Your task to perform on an android device: Empty the shopping cart on amazon.com. Search for "usb-b" on amazon.com, select the first entry, and add it to the cart. Image 0: 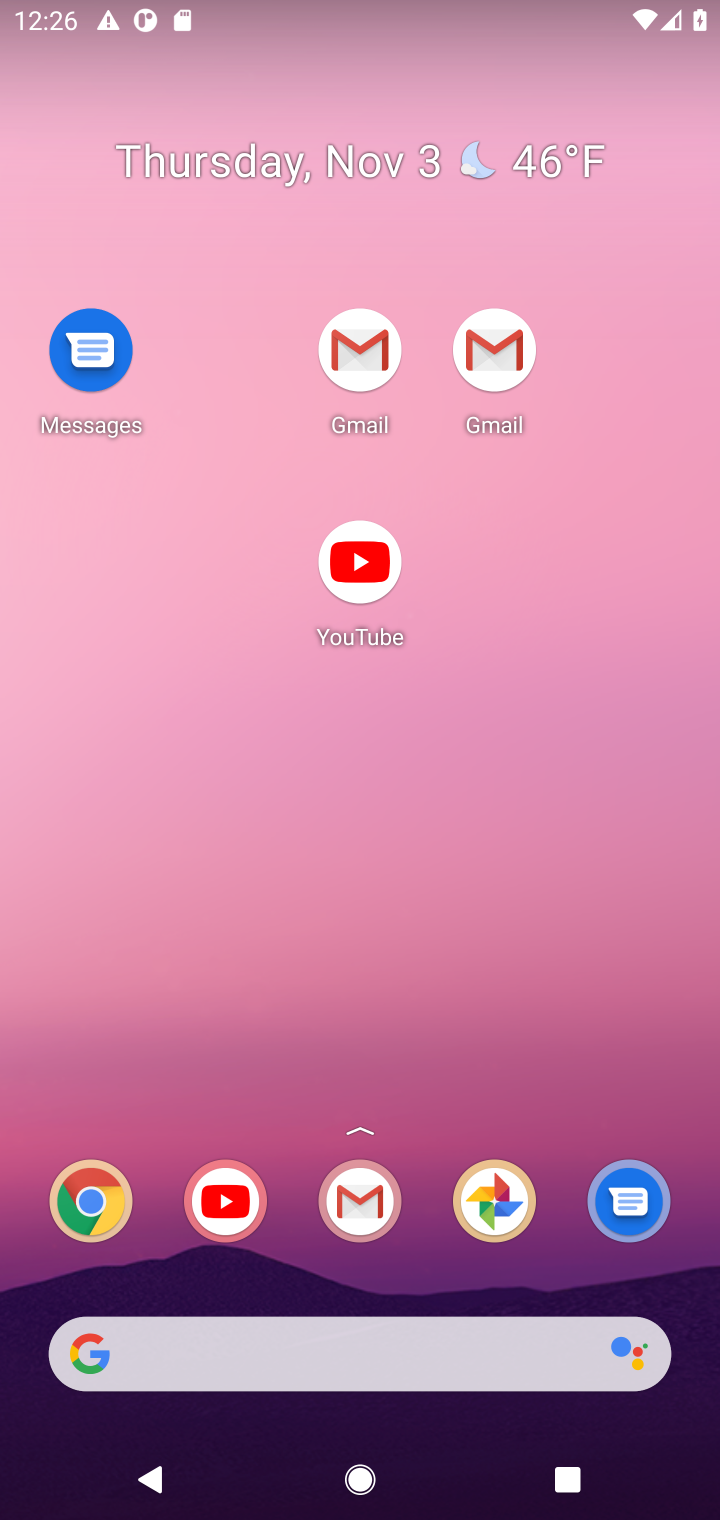
Step 0: drag from (338, 1290) to (227, 343)
Your task to perform on an android device: Empty the shopping cart on amazon.com. Search for "usb-b" on amazon.com, select the first entry, and add it to the cart. Image 1: 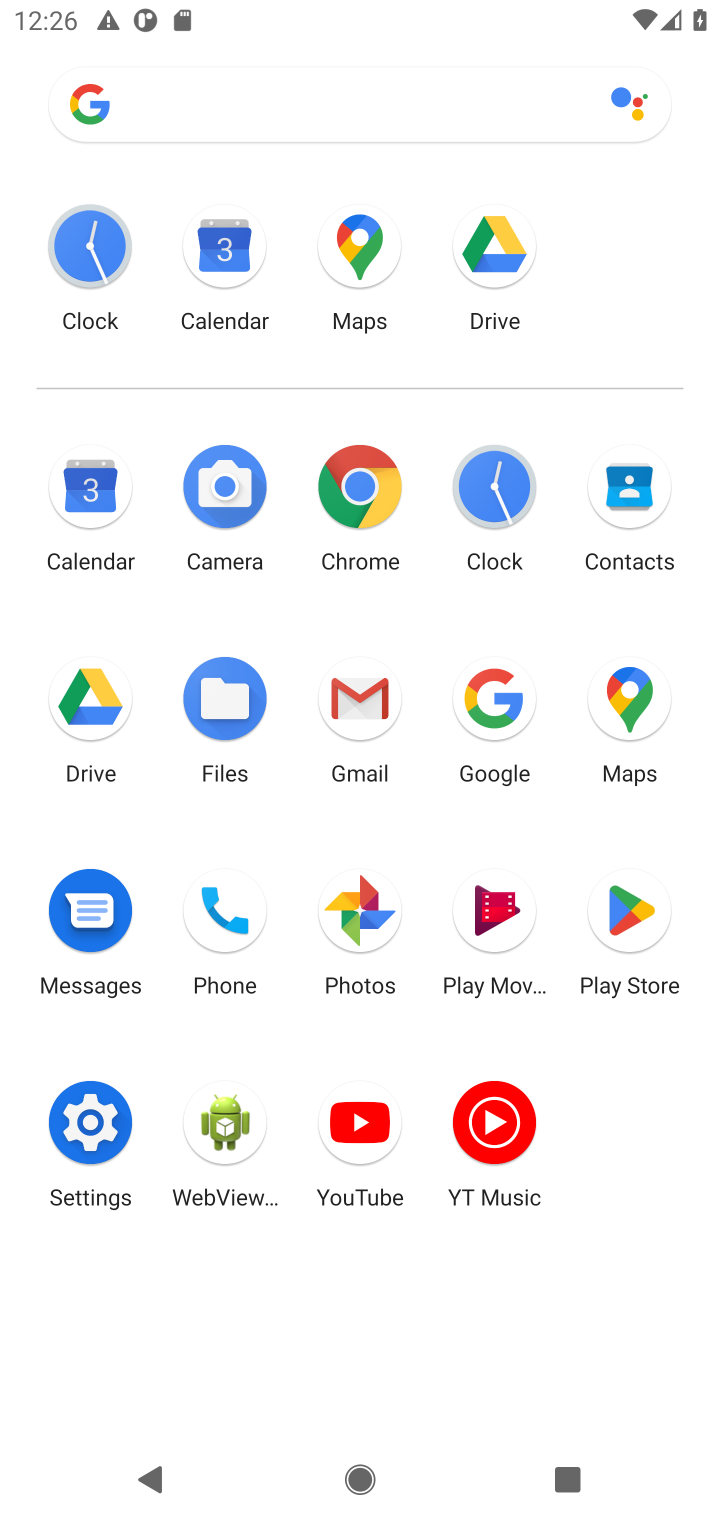
Step 1: click (361, 485)
Your task to perform on an android device: Empty the shopping cart on amazon.com. Search for "usb-b" on amazon.com, select the first entry, and add it to the cart. Image 2: 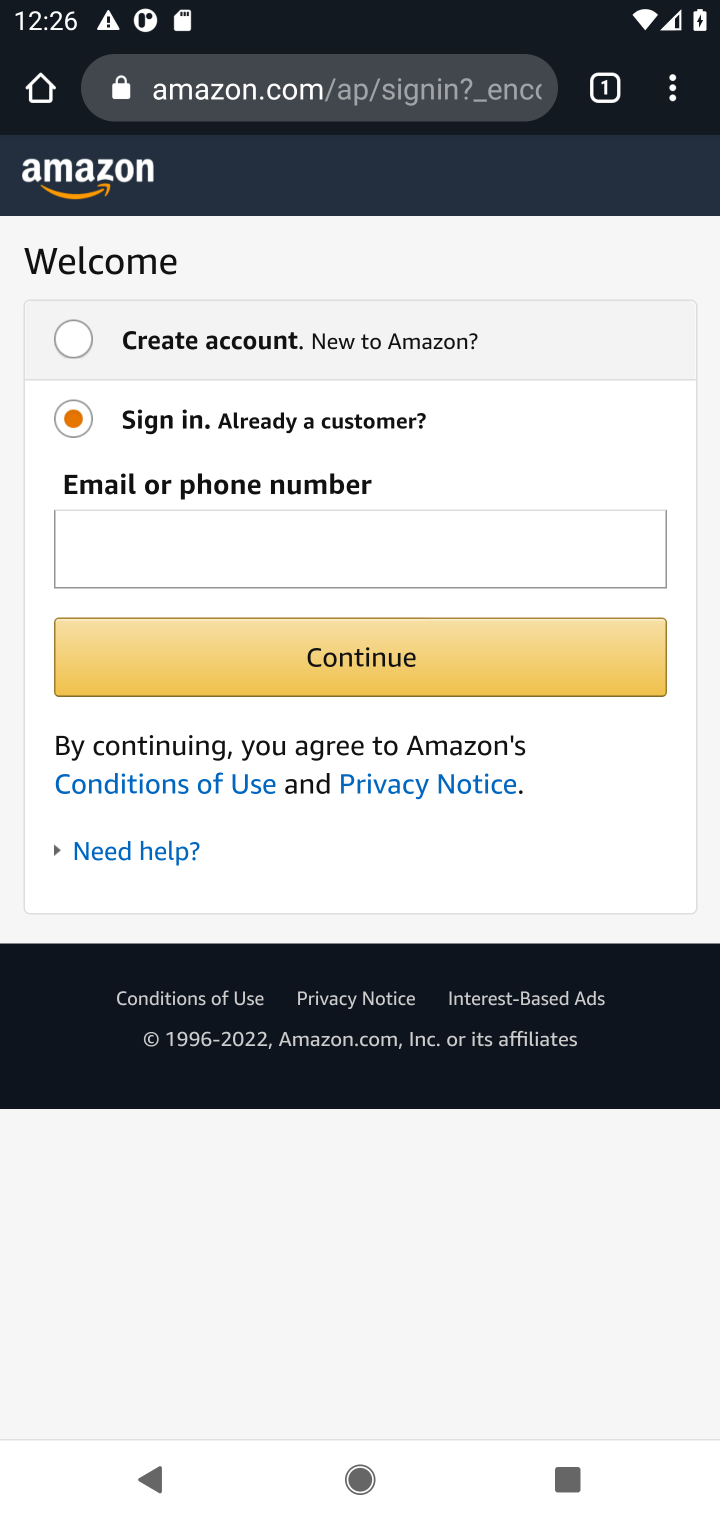
Step 2: click (337, 104)
Your task to perform on an android device: Empty the shopping cart on amazon.com. Search for "usb-b" on amazon.com, select the first entry, and add it to the cart. Image 3: 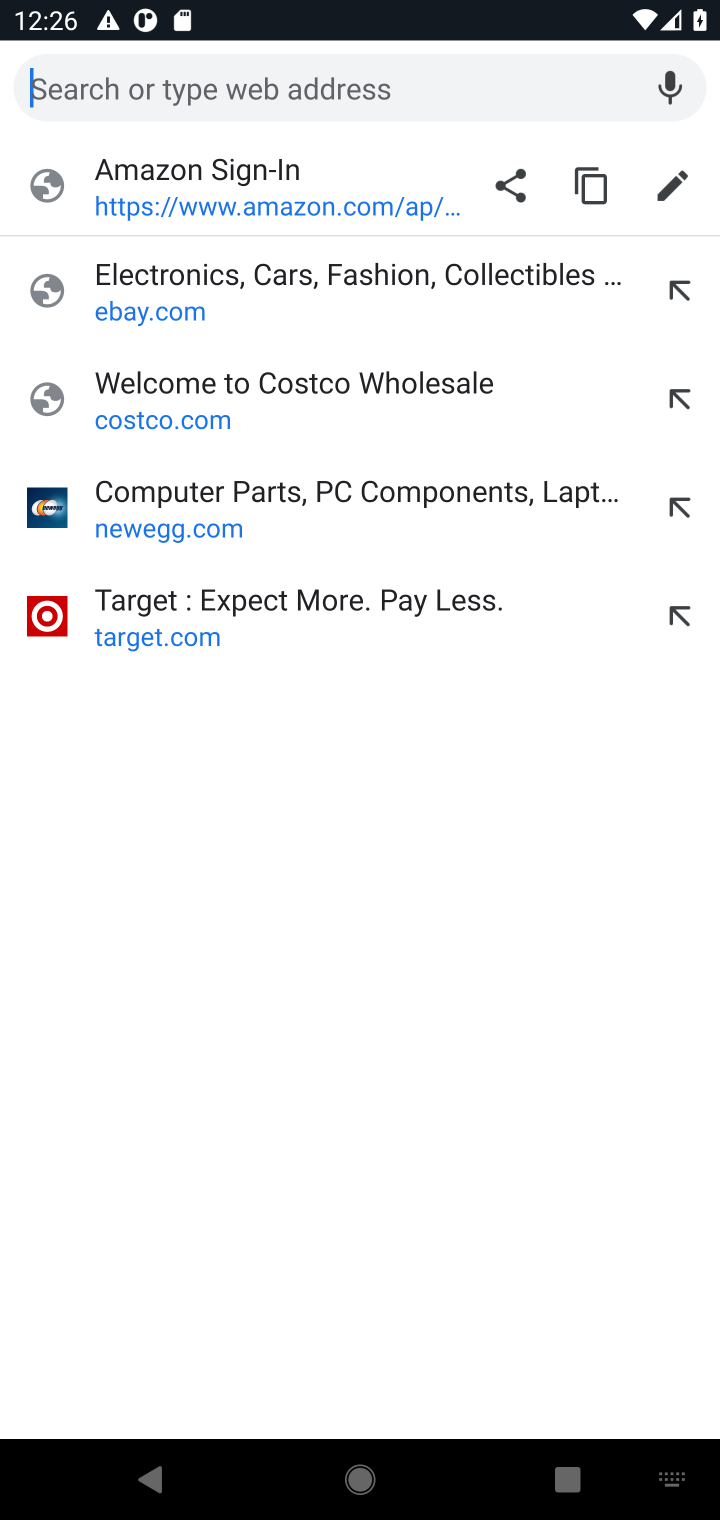
Step 3: type "amazon.com"
Your task to perform on an android device: Empty the shopping cart on amazon.com. Search for "usb-b" on amazon.com, select the first entry, and add it to the cart. Image 4: 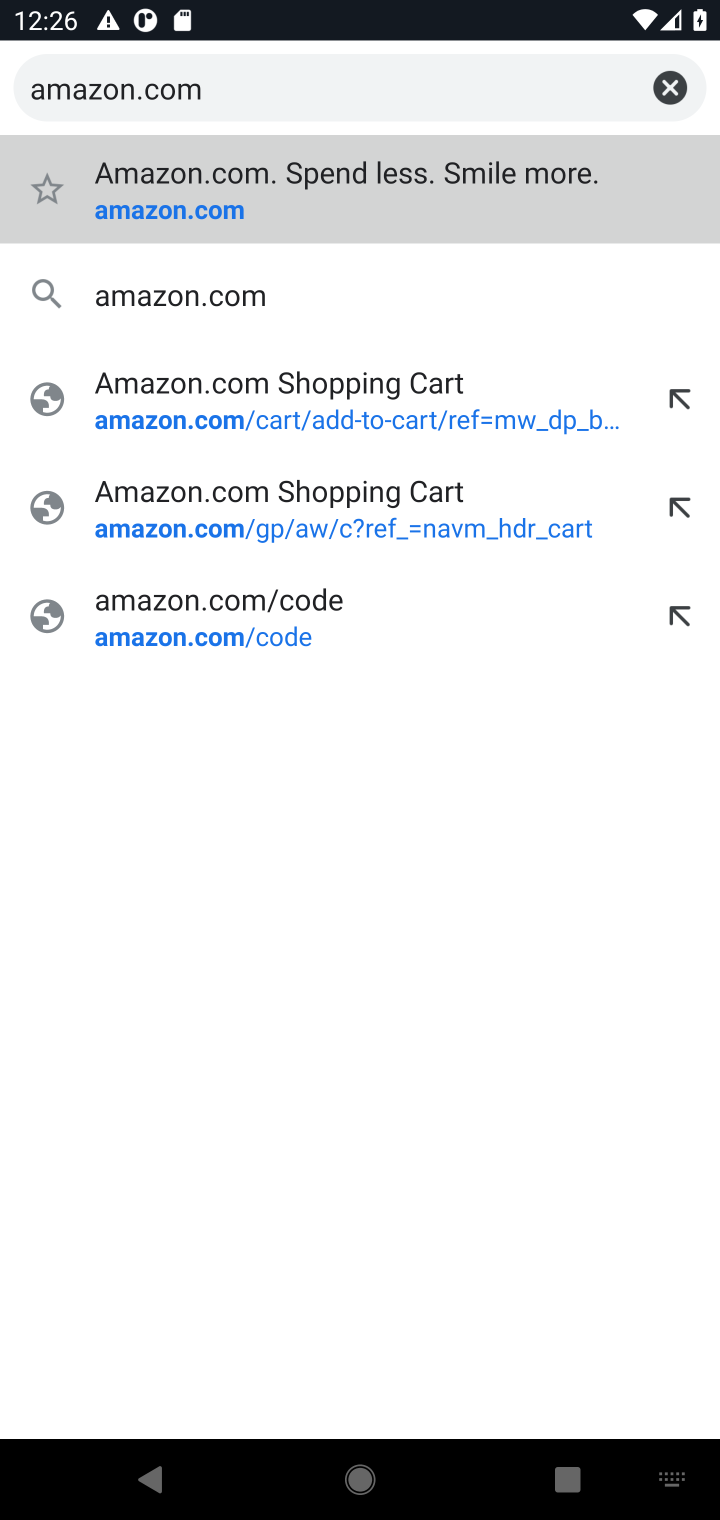
Step 4: press enter
Your task to perform on an android device: Empty the shopping cart on amazon.com. Search for "usb-b" on amazon.com, select the first entry, and add it to the cart. Image 5: 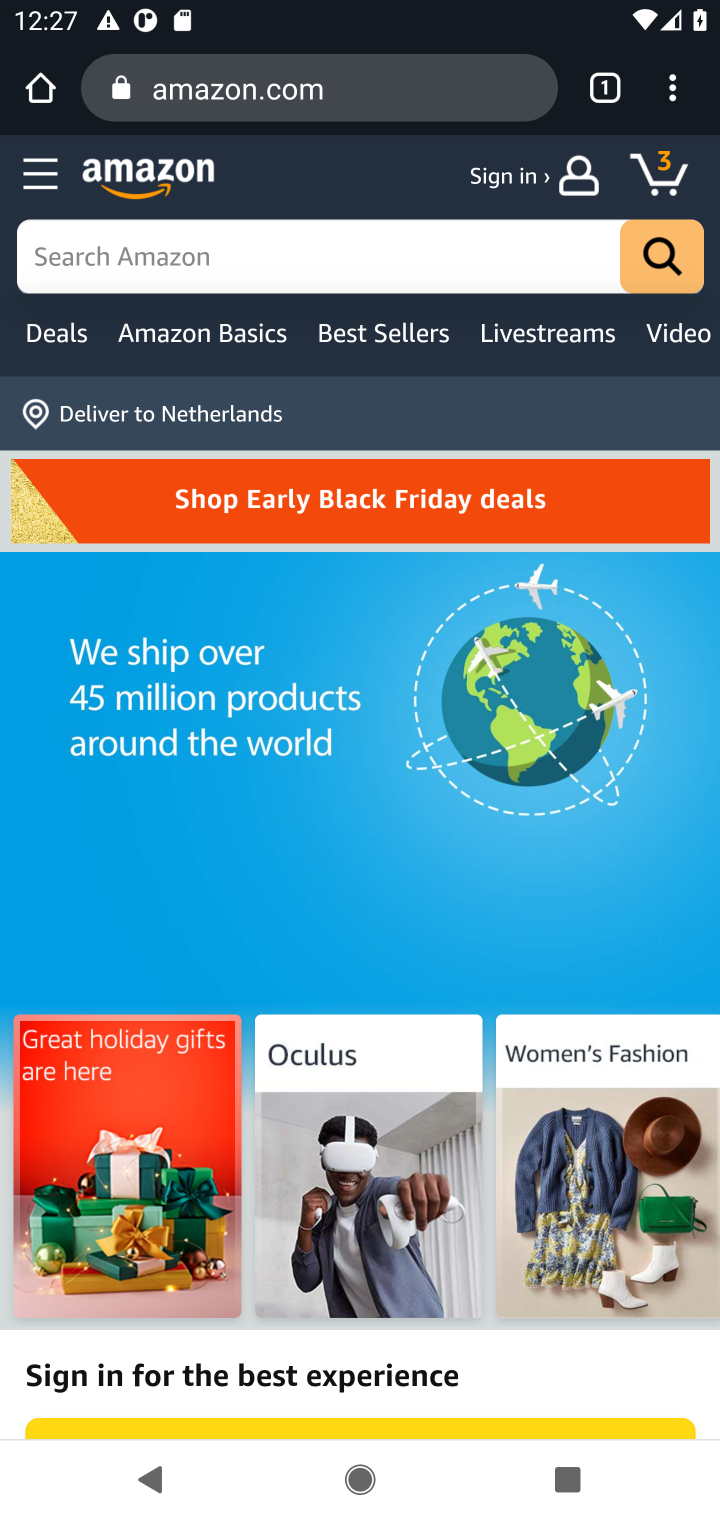
Step 5: click (678, 159)
Your task to perform on an android device: Empty the shopping cart on amazon.com. Search for "usb-b" on amazon.com, select the first entry, and add it to the cart. Image 6: 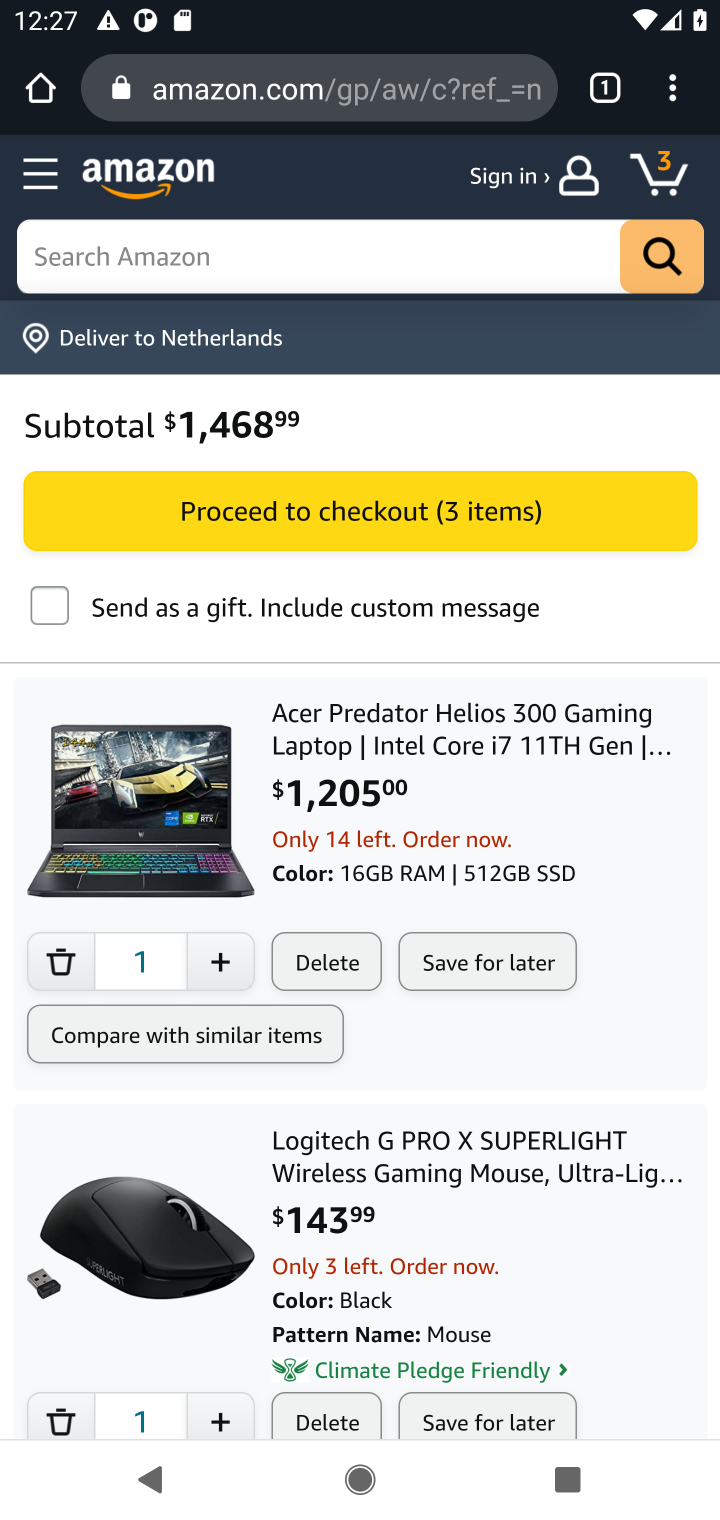
Step 6: click (44, 954)
Your task to perform on an android device: Empty the shopping cart on amazon.com. Search for "usb-b" on amazon.com, select the first entry, and add it to the cart. Image 7: 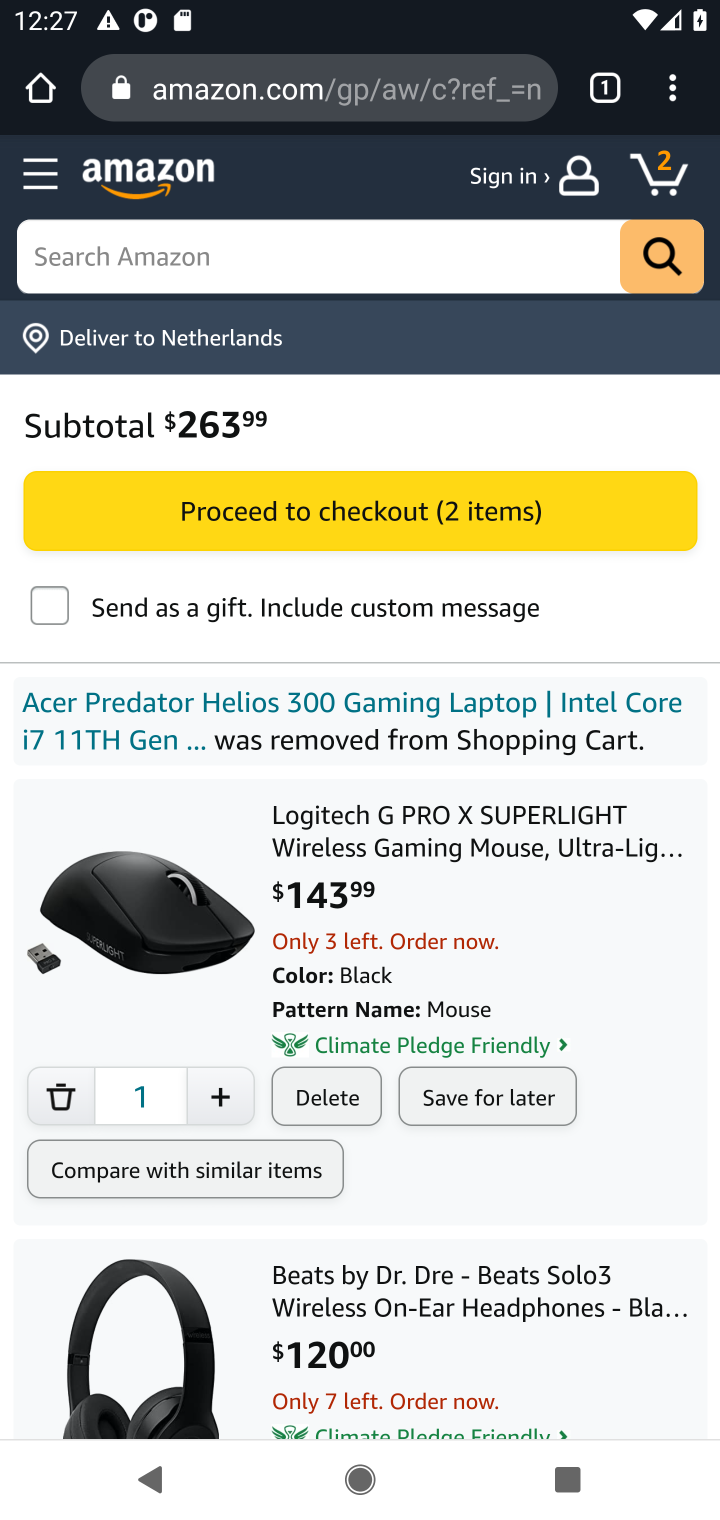
Step 7: click (71, 1086)
Your task to perform on an android device: Empty the shopping cart on amazon.com. Search for "usb-b" on amazon.com, select the first entry, and add it to the cart. Image 8: 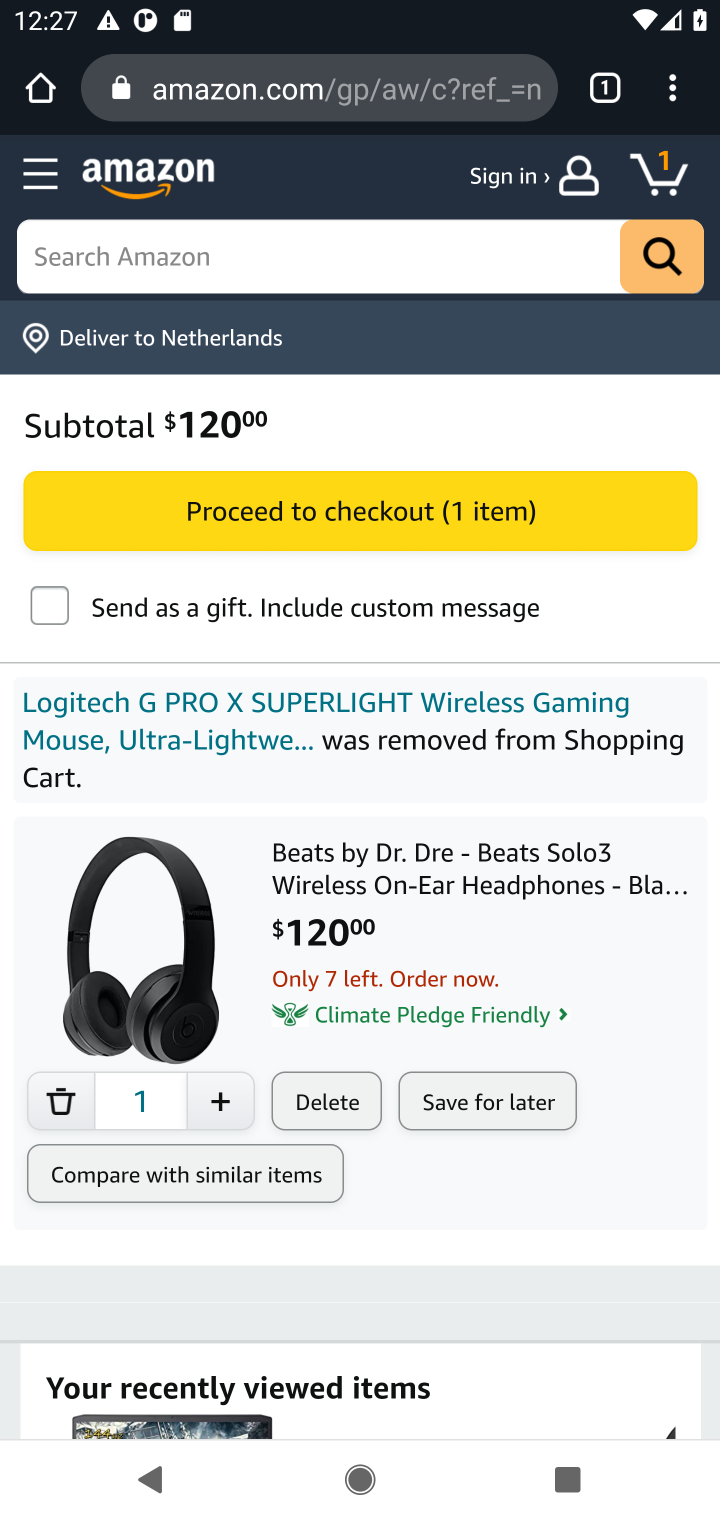
Step 8: click (68, 1104)
Your task to perform on an android device: Empty the shopping cart on amazon.com. Search for "usb-b" on amazon.com, select the first entry, and add it to the cart. Image 9: 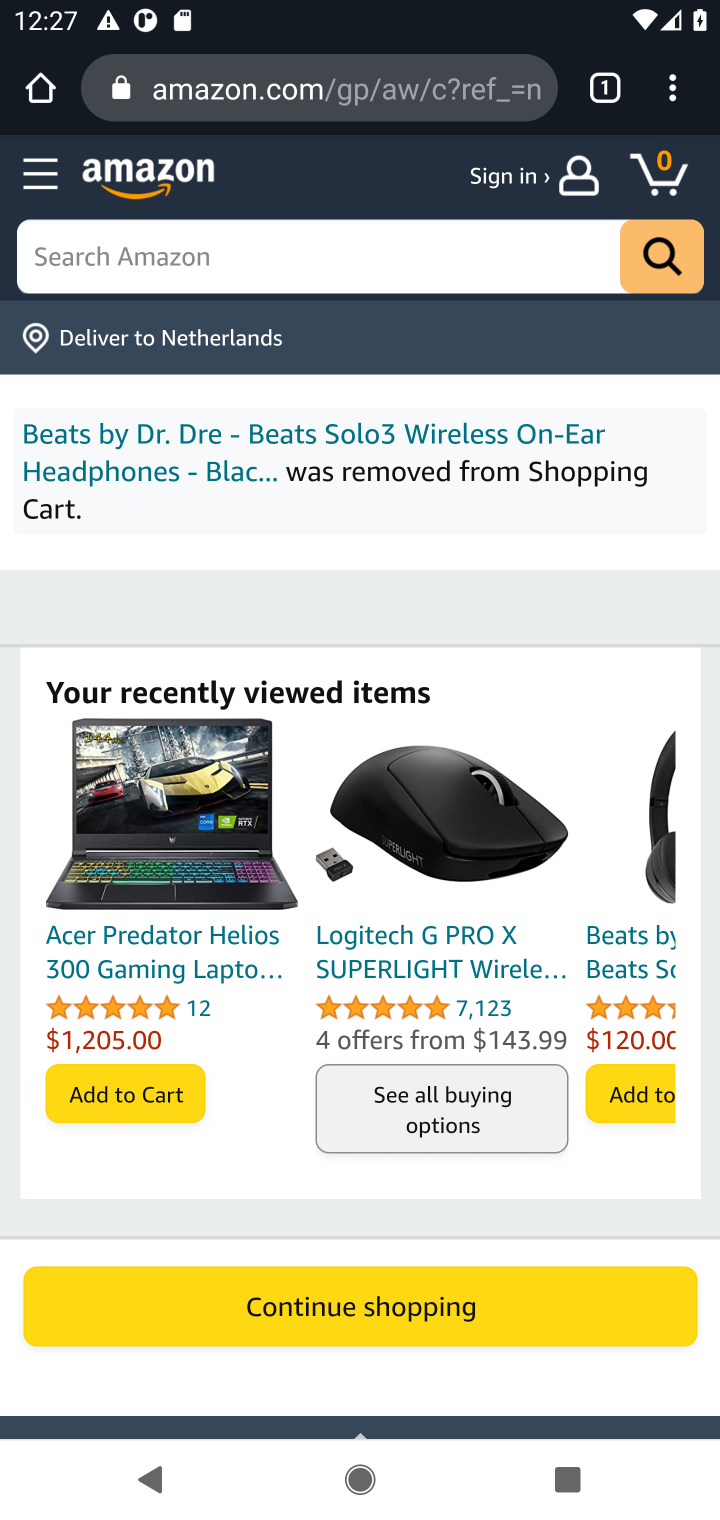
Step 9: click (392, 261)
Your task to perform on an android device: Empty the shopping cart on amazon.com. Search for "usb-b" on amazon.com, select the first entry, and add it to the cart. Image 10: 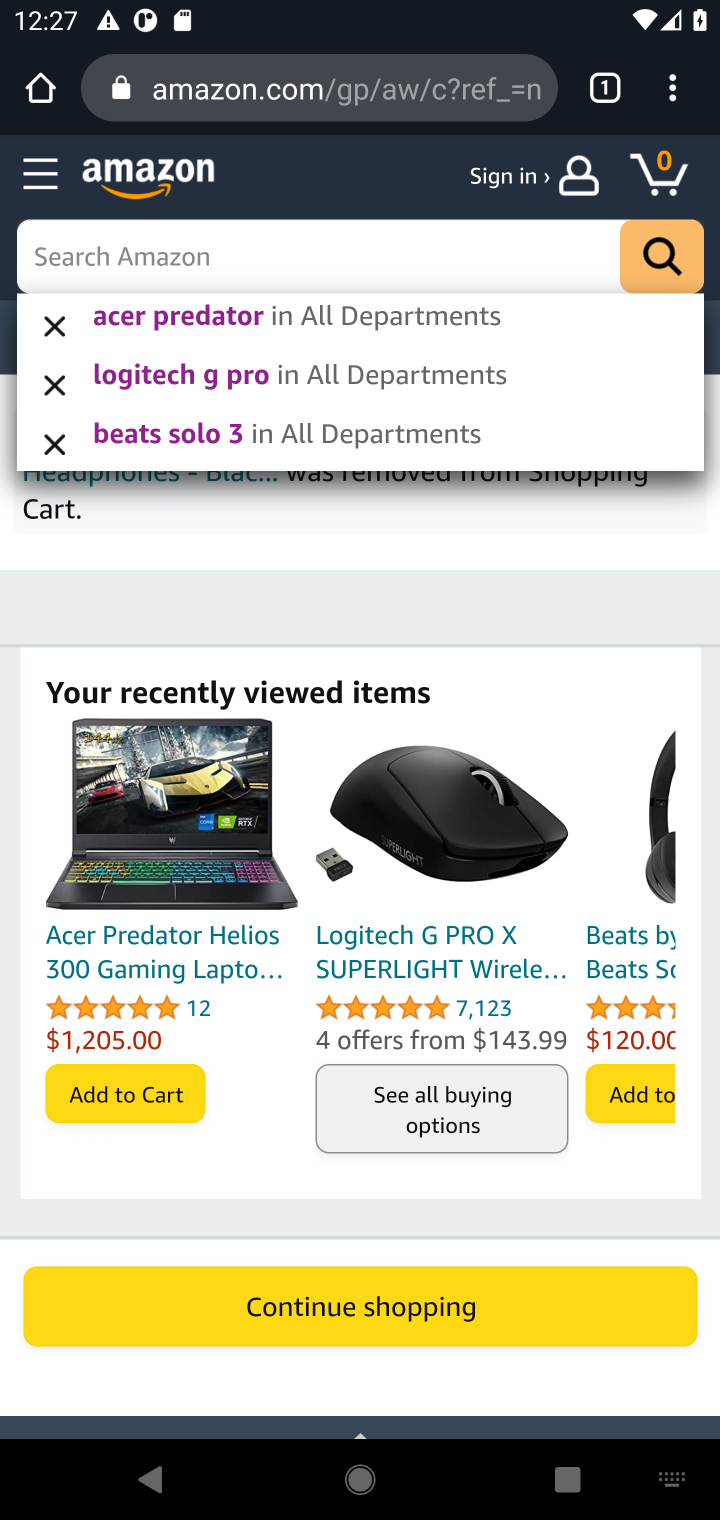
Step 10: type "usb-b"
Your task to perform on an android device: Empty the shopping cart on amazon.com. Search for "usb-b" on amazon.com, select the first entry, and add it to the cart. Image 11: 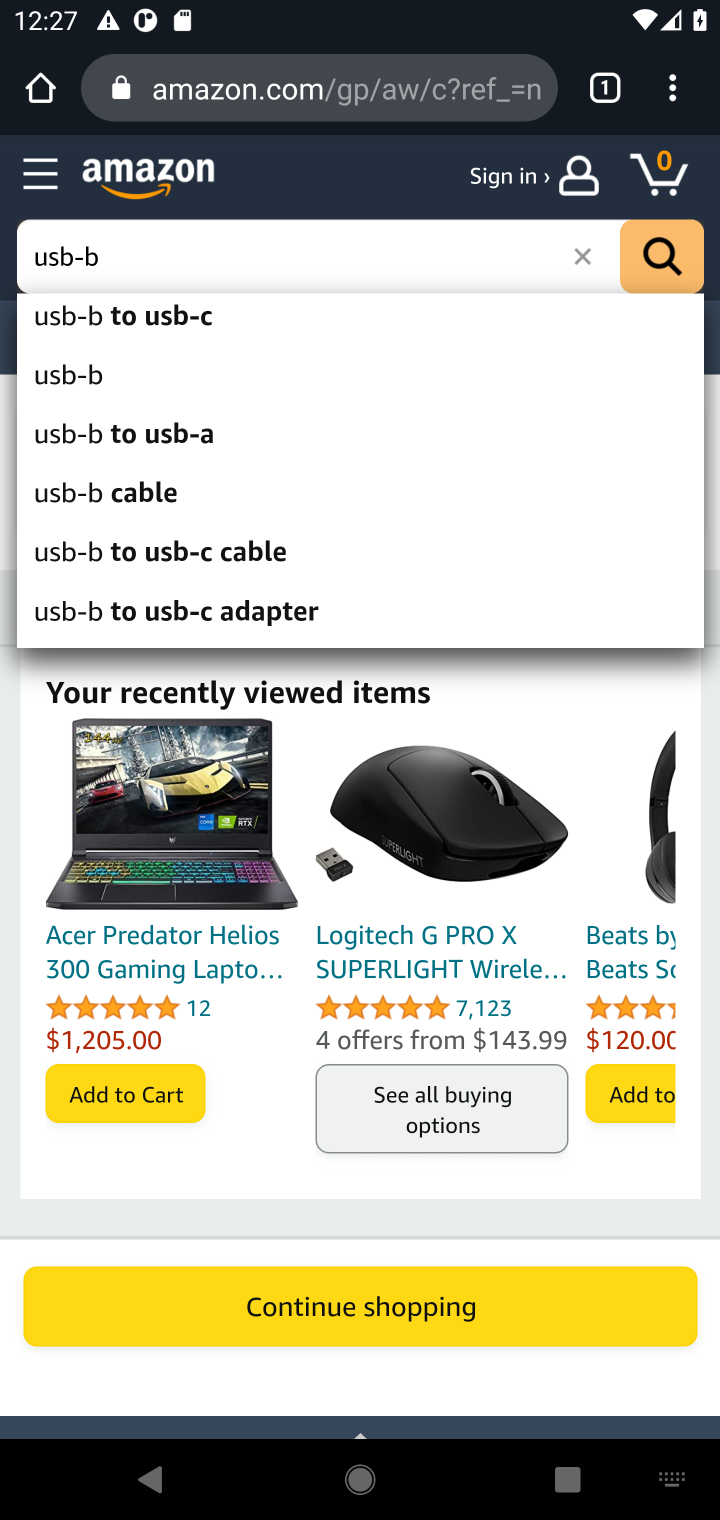
Step 11: press enter
Your task to perform on an android device: Empty the shopping cart on amazon.com. Search for "usb-b" on amazon.com, select the first entry, and add it to the cart. Image 12: 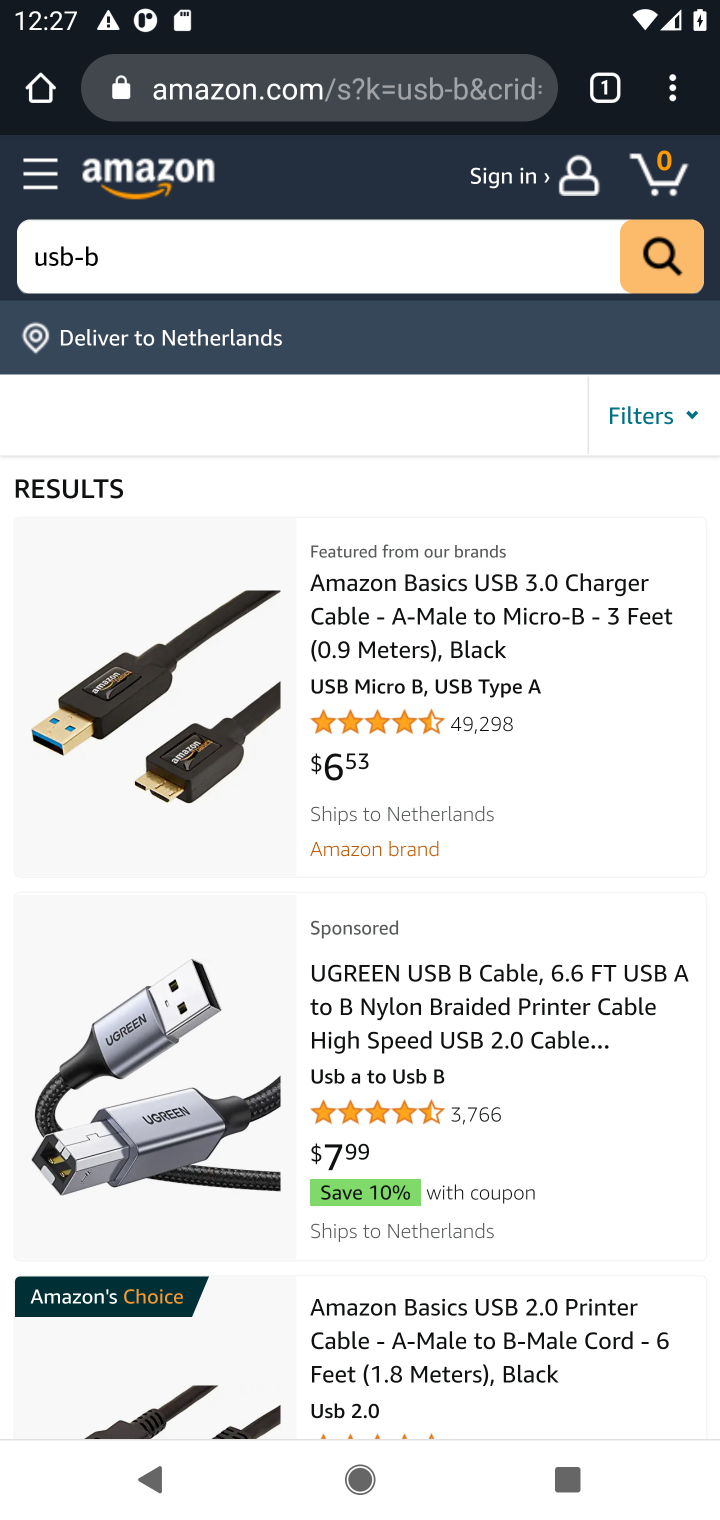
Step 12: drag from (325, 1198) to (329, 663)
Your task to perform on an android device: Empty the shopping cart on amazon.com. Search for "usb-b" on amazon.com, select the first entry, and add it to the cart. Image 13: 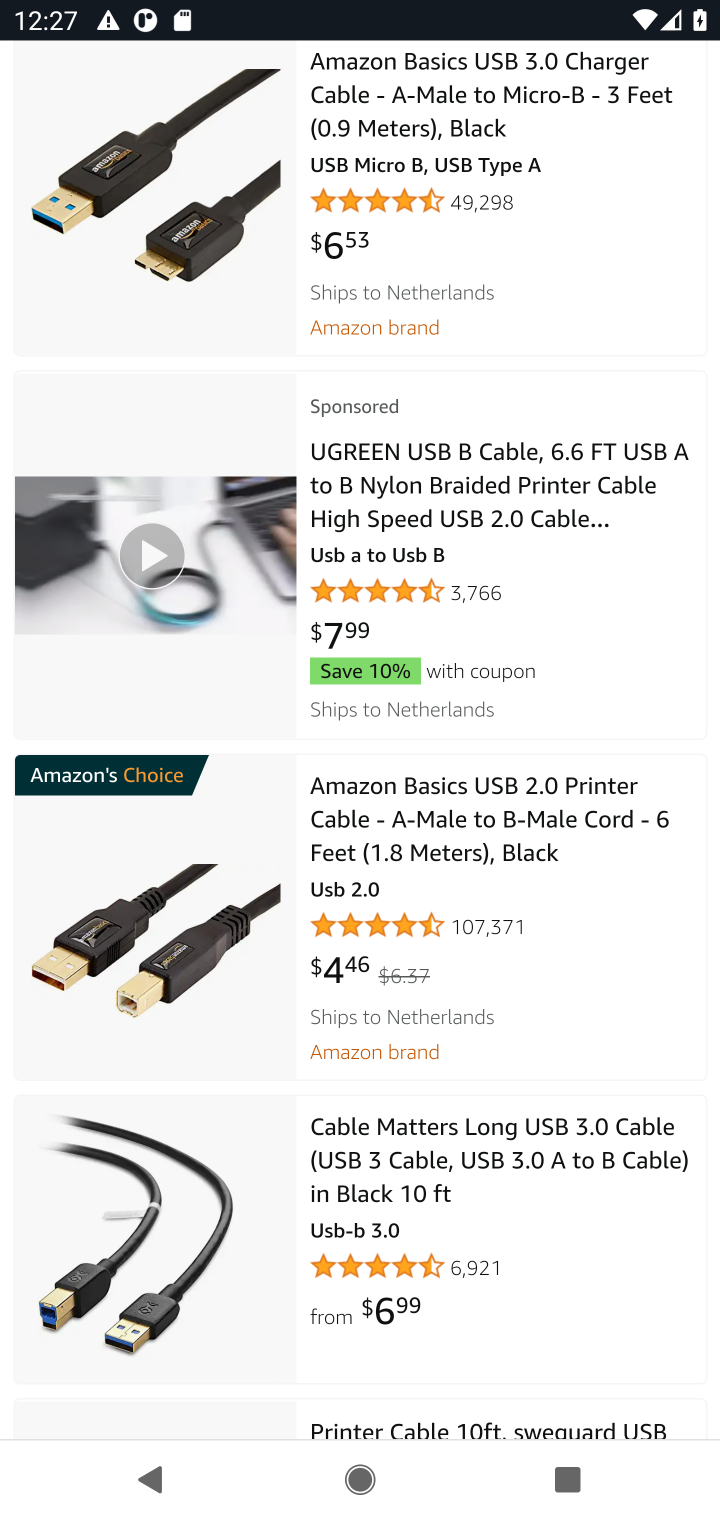
Step 13: click (191, 885)
Your task to perform on an android device: Empty the shopping cart on amazon.com. Search for "usb-b" on amazon.com, select the first entry, and add it to the cart. Image 14: 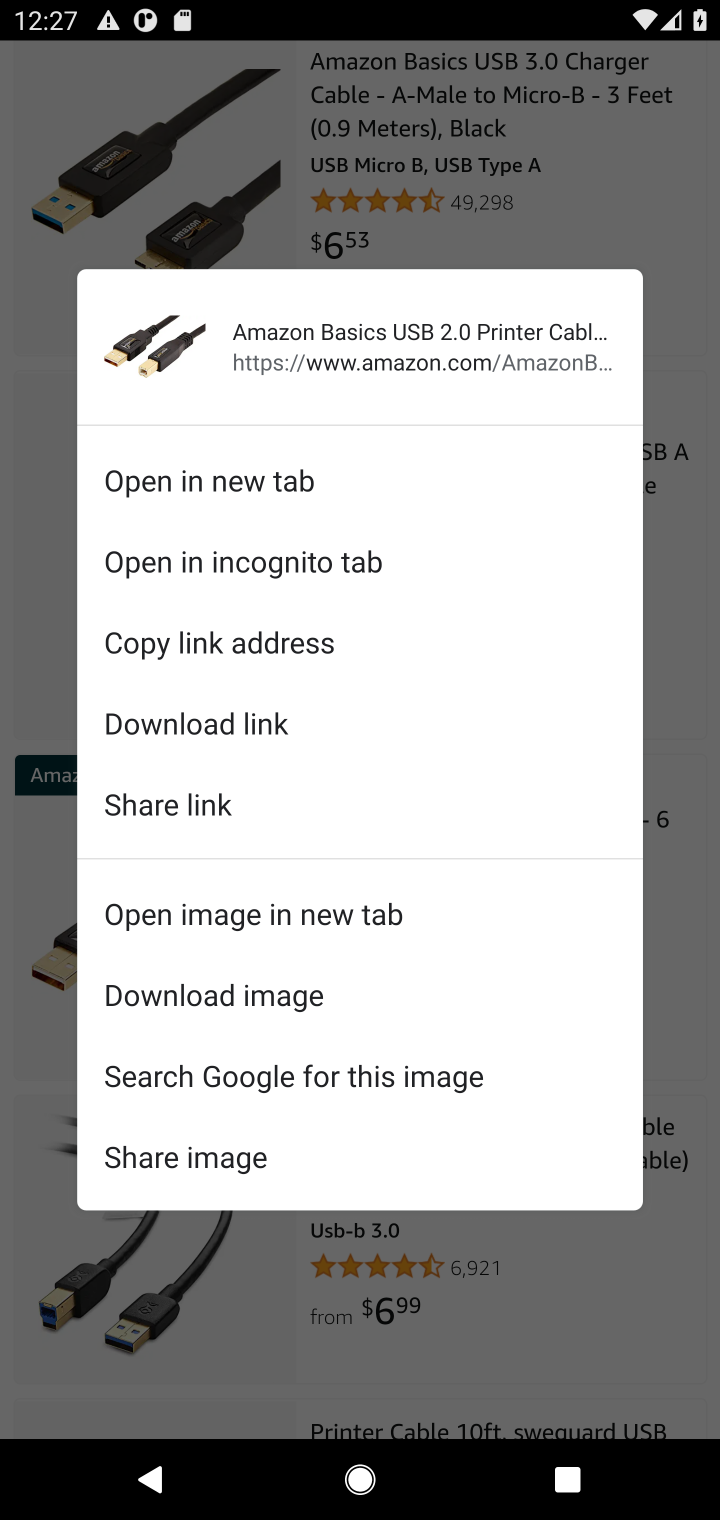
Step 14: click (37, 890)
Your task to perform on an android device: Empty the shopping cart on amazon.com. Search for "usb-b" on amazon.com, select the first entry, and add it to the cart. Image 15: 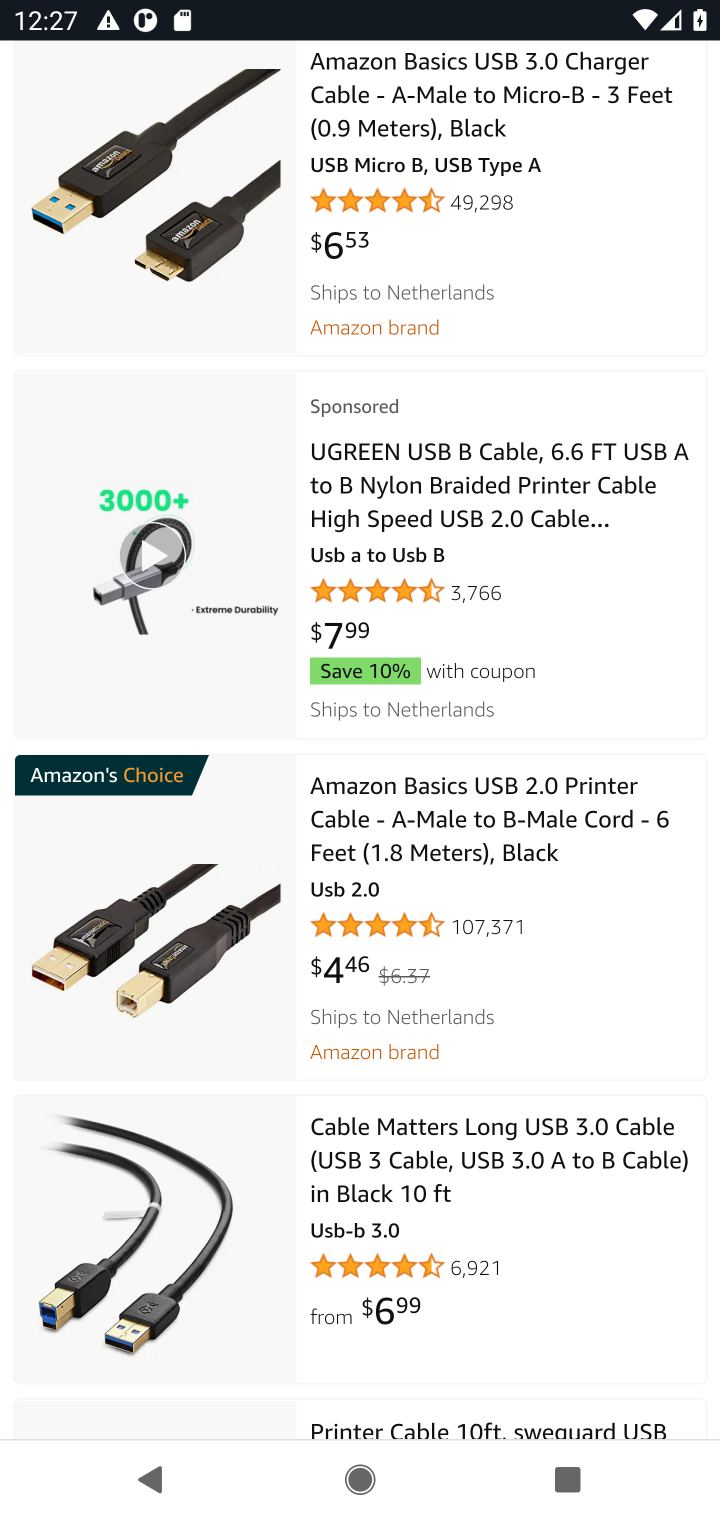
Step 15: click (137, 902)
Your task to perform on an android device: Empty the shopping cart on amazon.com. Search for "usb-b" on amazon.com, select the first entry, and add it to the cart. Image 16: 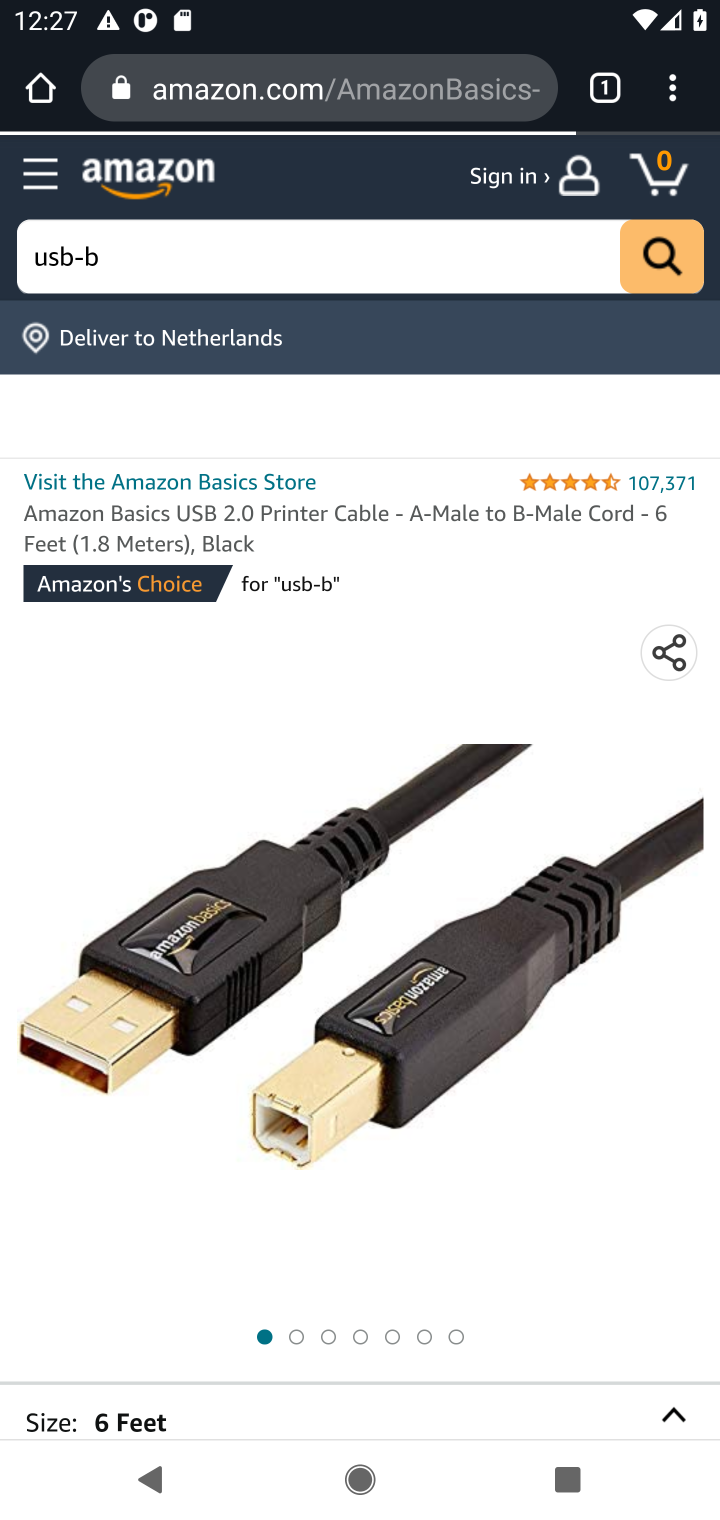
Step 16: drag from (506, 1240) to (496, 618)
Your task to perform on an android device: Empty the shopping cart on amazon.com. Search for "usb-b" on amazon.com, select the first entry, and add it to the cart. Image 17: 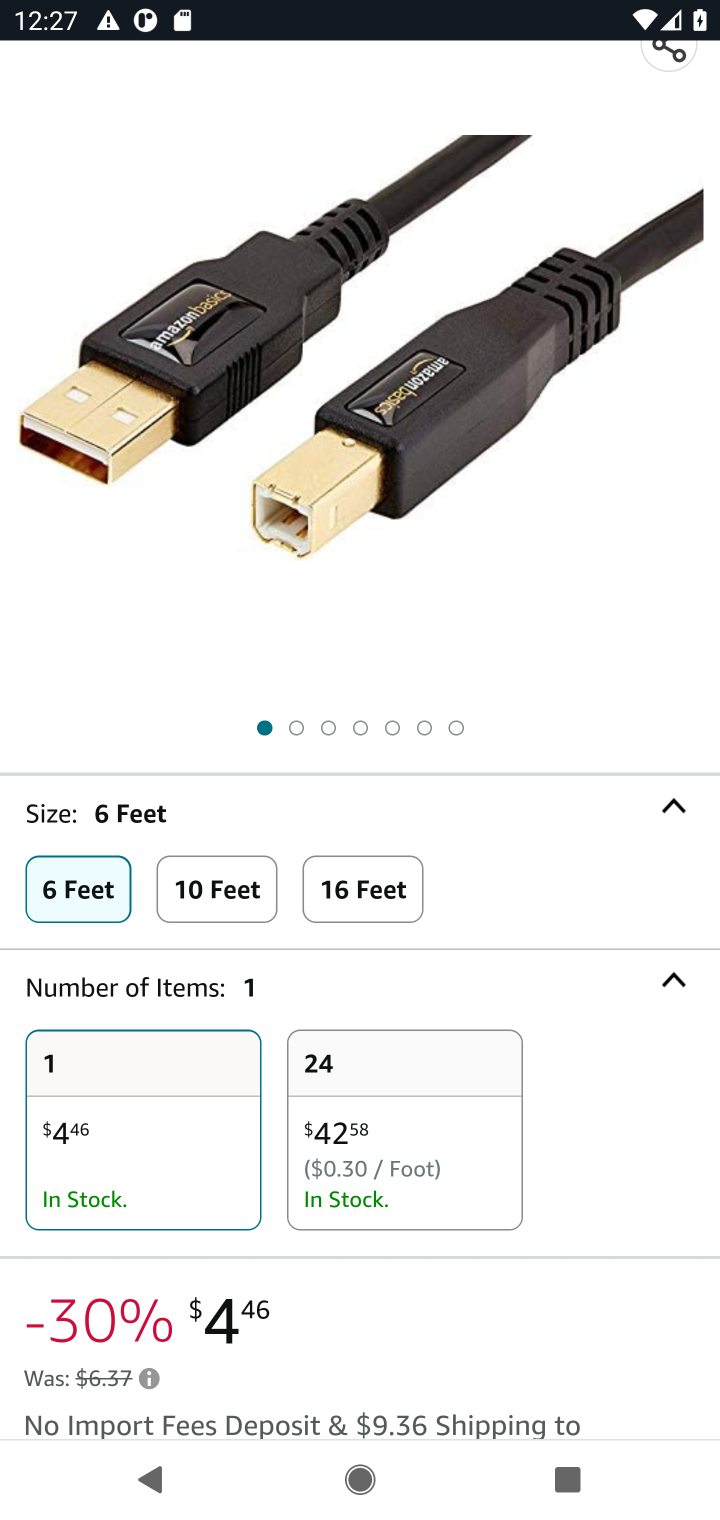
Step 17: drag from (486, 1177) to (464, 732)
Your task to perform on an android device: Empty the shopping cart on amazon.com. Search for "usb-b" on amazon.com, select the first entry, and add it to the cart. Image 18: 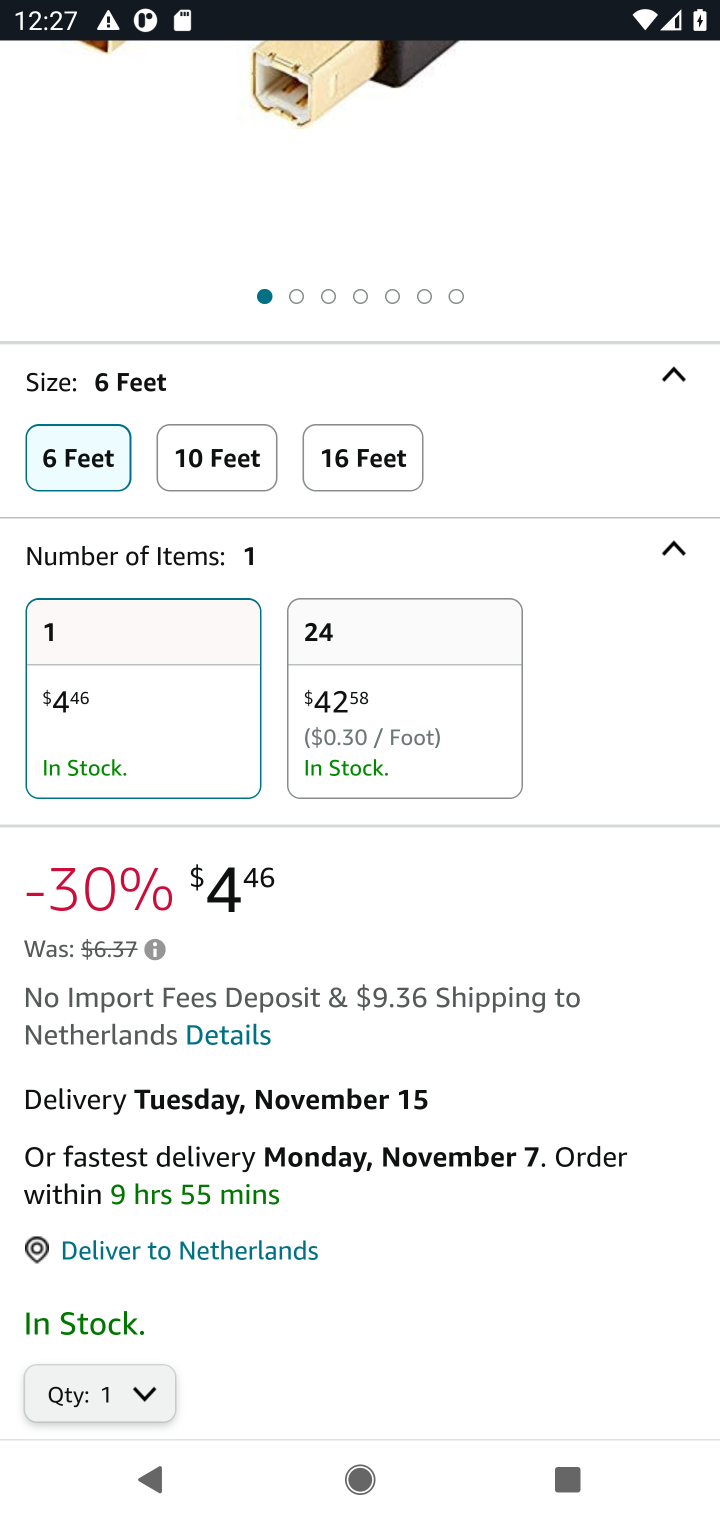
Step 18: drag from (474, 1242) to (411, 613)
Your task to perform on an android device: Empty the shopping cart on amazon.com. Search for "usb-b" on amazon.com, select the first entry, and add it to the cart. Image 19: 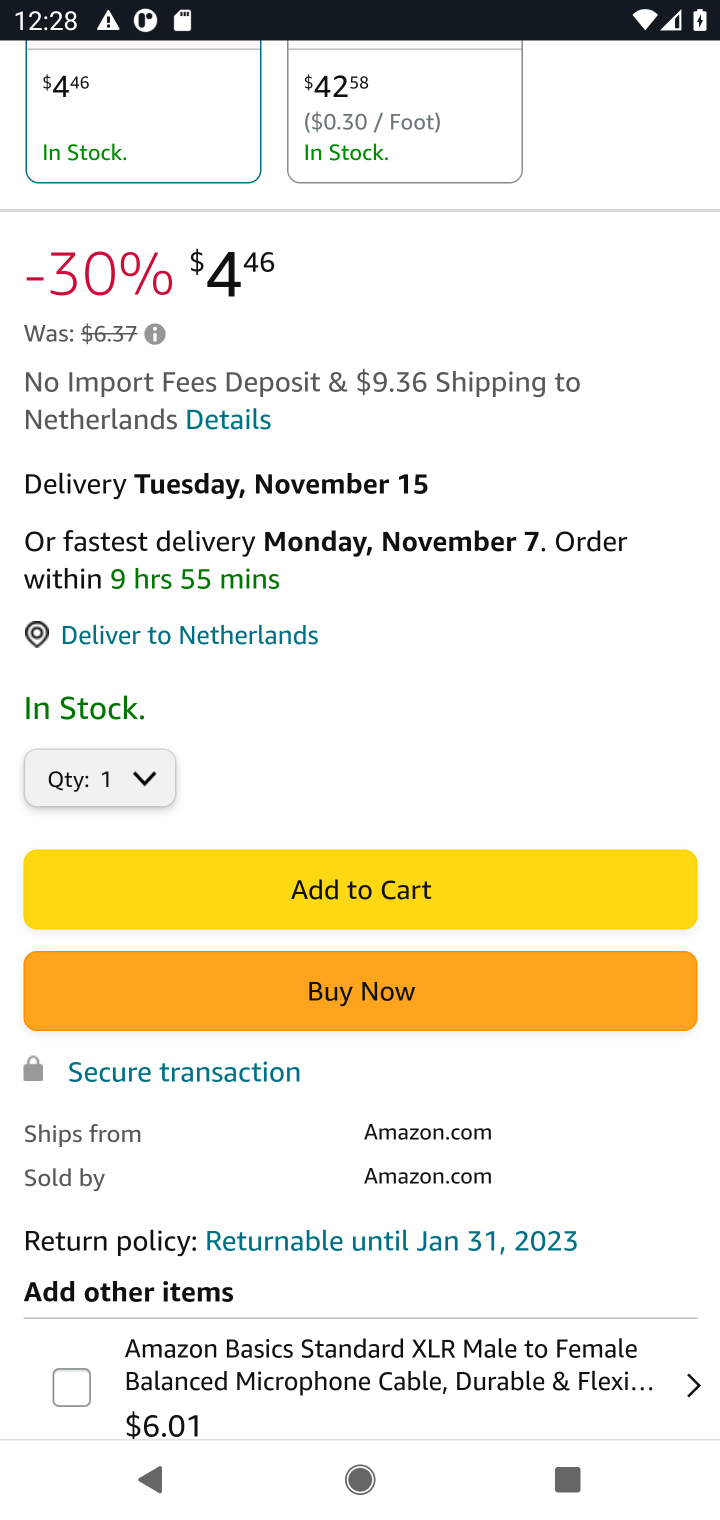
Step 19: click (349, 890)
Your task to perform on an android device: Empty the shopping cart on amazon.com. Search for "usb-b" on amazon.com, select the first entry, and add it to the cart. Image 20: 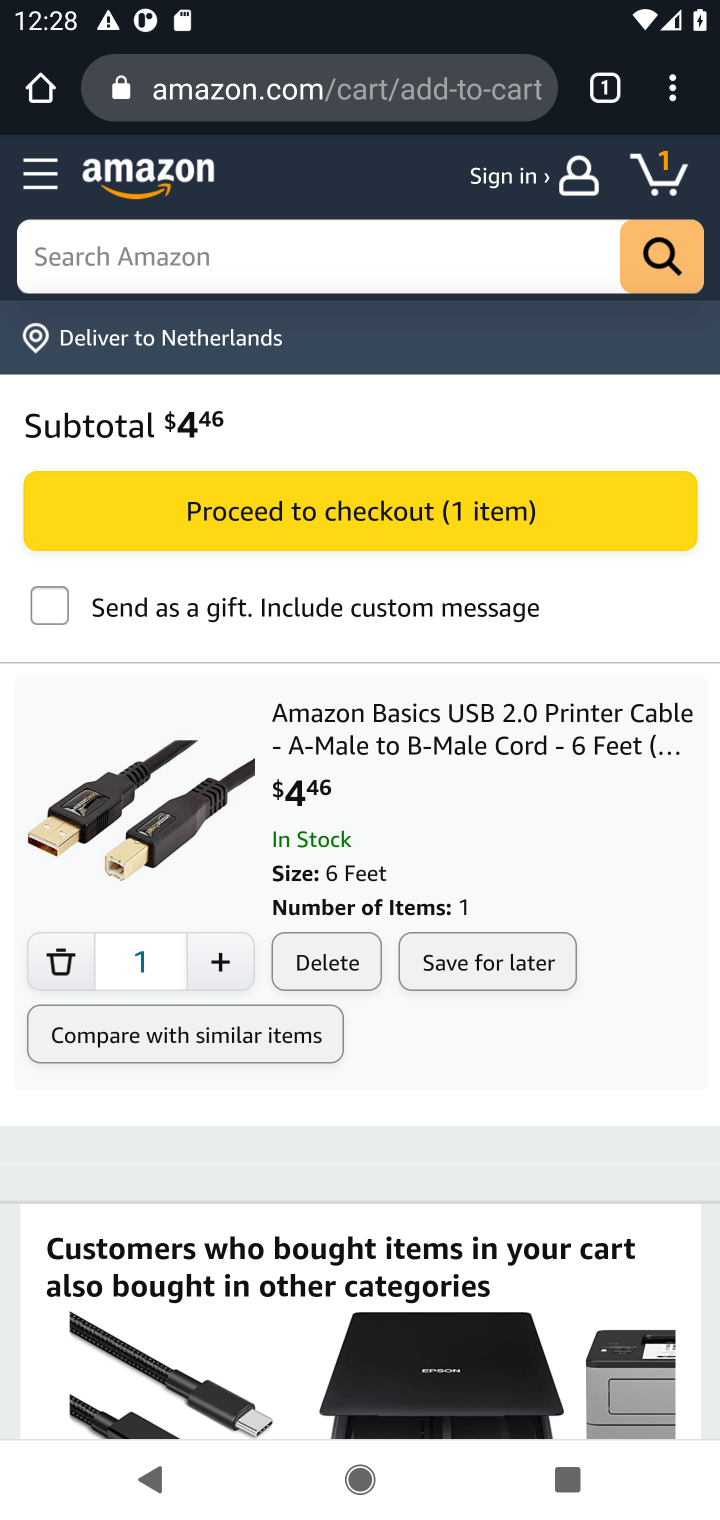
Step 20: task complete